Your task to perform on an android device: search for starred emails in the gmail app Image 0: 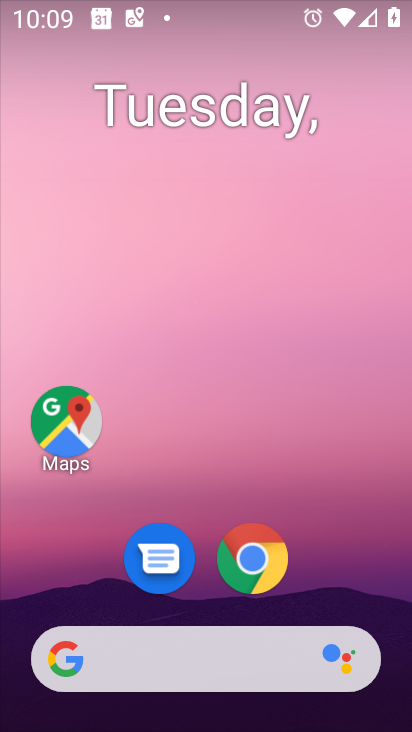
Step 0: drag from (310, 594) to (260, 204)
Your task to perform on an android device: search for starred emails in the gmail app Image 1: 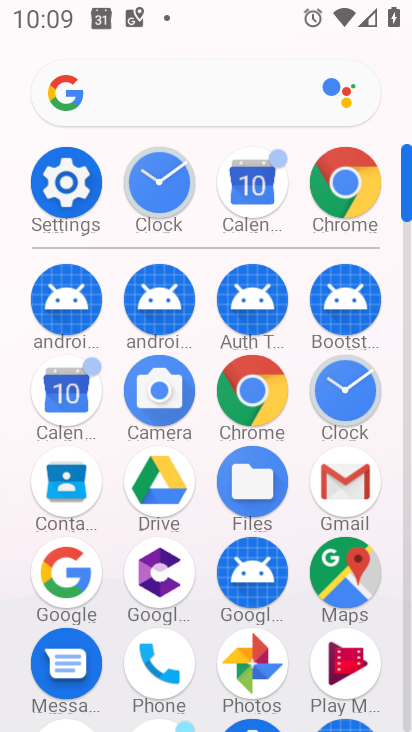
Step 1: click (342, 494)
Your task to perform on an android device: search for starred emails in the gmail app Image 2: 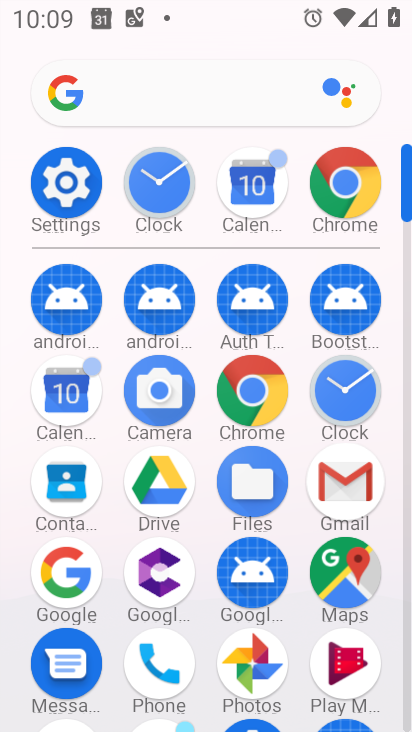
Step 2: click (340, 490)
Your task to perform on an android device: search for starred emails in the gmail app Image 3: 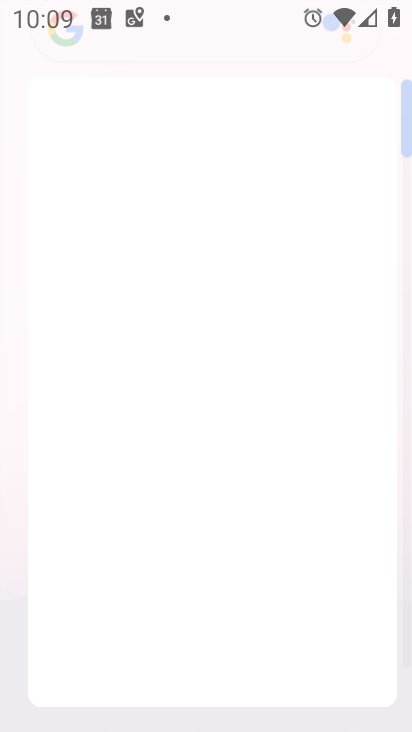
Step 3: click (349, 477)
Your task to perform on an android device: search for starred emails in the gmail app Image 4: 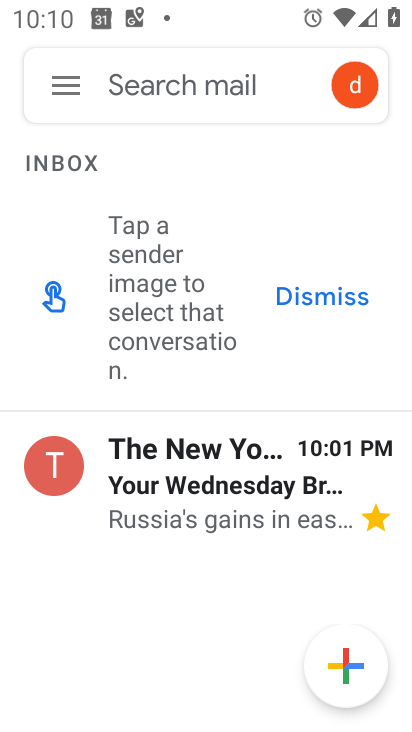
Step 4: click (256, 499)
Your task to perform on an android device: search for starred emails in the gmail app Image 5: 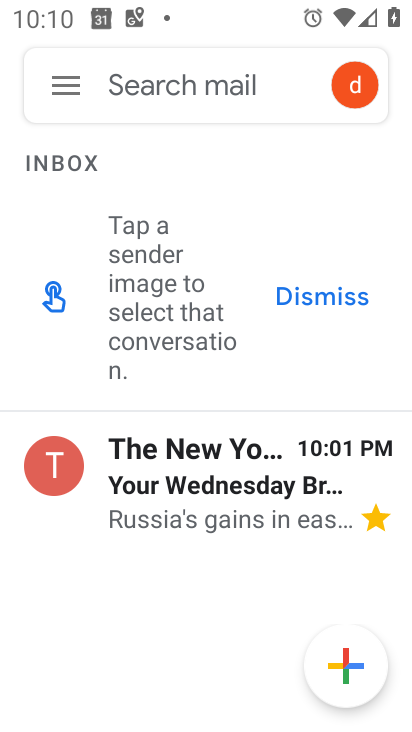
Step 5: click (249, 485)
Your task to perform on an android device: search for starred emails in the gmail app Image 6: 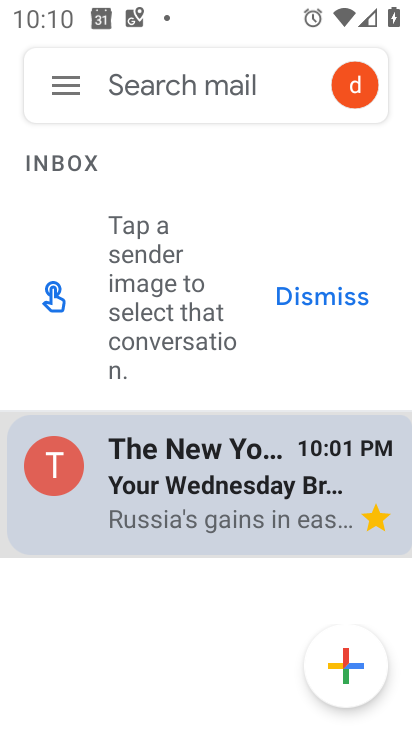
Step 6: click (249, 485)
Your task to perform on an android device: search for starred emails in the gmail app Image 7: 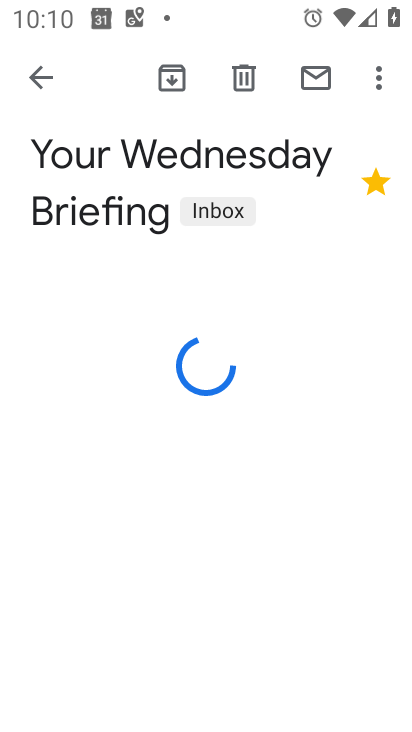
Step 7: task complete